Your task to perform on an android device: turn off translation in the chrome app Image 0: 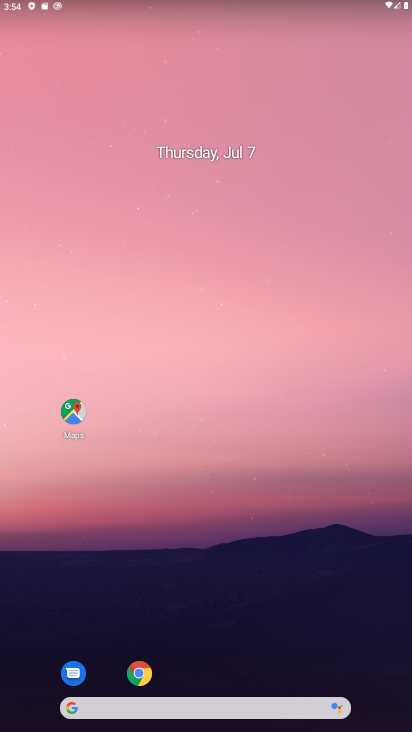
Step 0: press home button
Your task to perform on an android device: turn off translation in the chrome app Image 1: 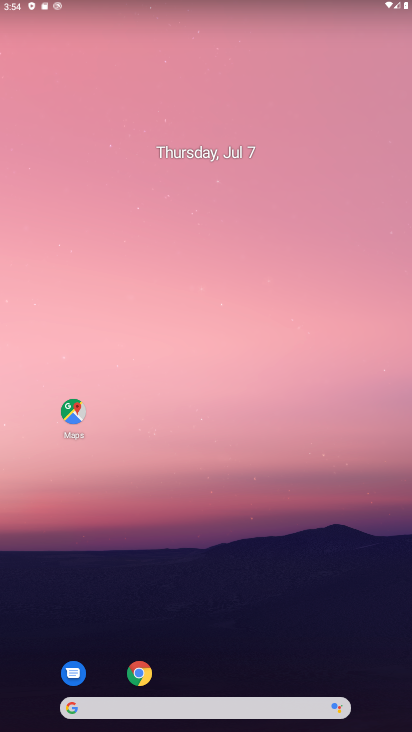
Step 1: click (130, 674)
Your task to perform on an android device: turn off translation in the chrome app Image 2: 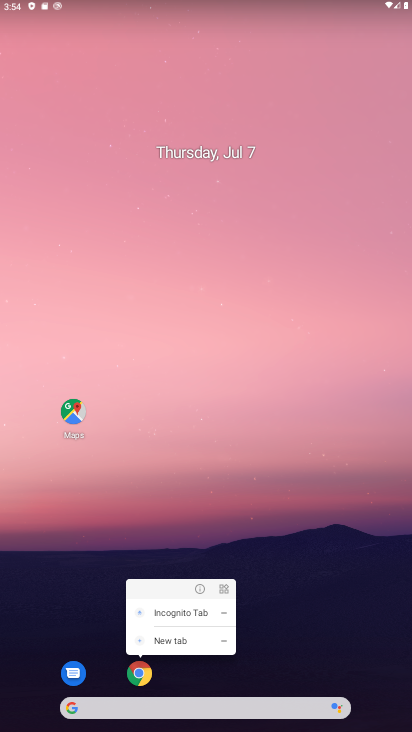
Step 2: click (146, 668)
Your task to perform on an android device: turn off translation in the chrome app Image 3: 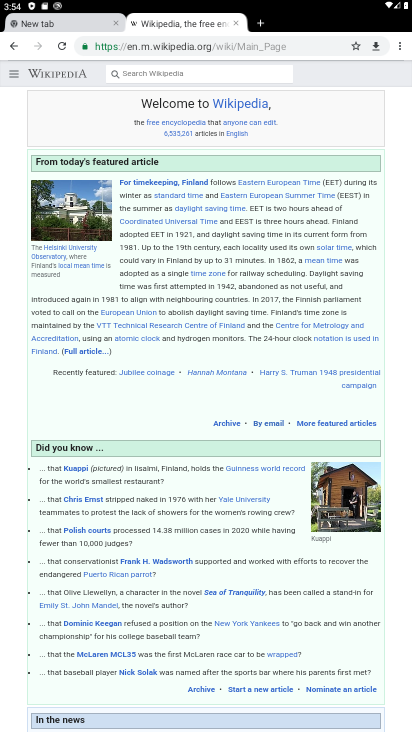
Step 3: click (398, 44)
Your task to perform on an android device: turn off translation in the chrome app Image 4: 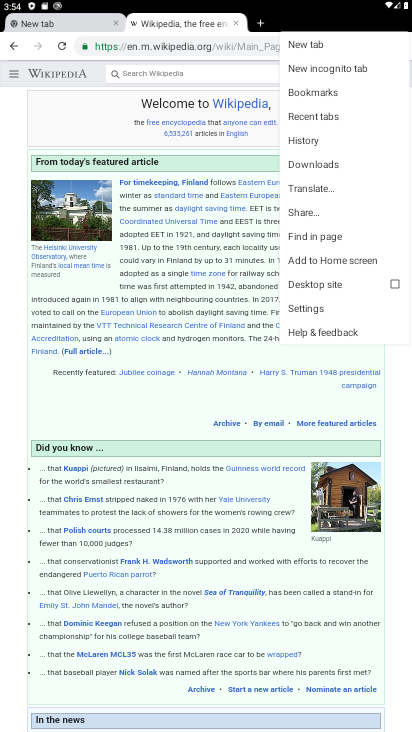
Step 4: click (327, 305)
Your task to perform on an android device: turn off translation in the chrome app Image 5: 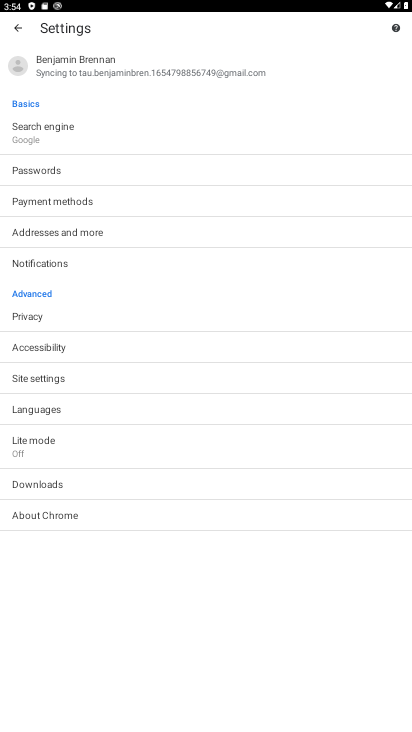
Step 5: click (65, 407)
Your task to perform on an android device: turn off translation in the chrome app Image 6: 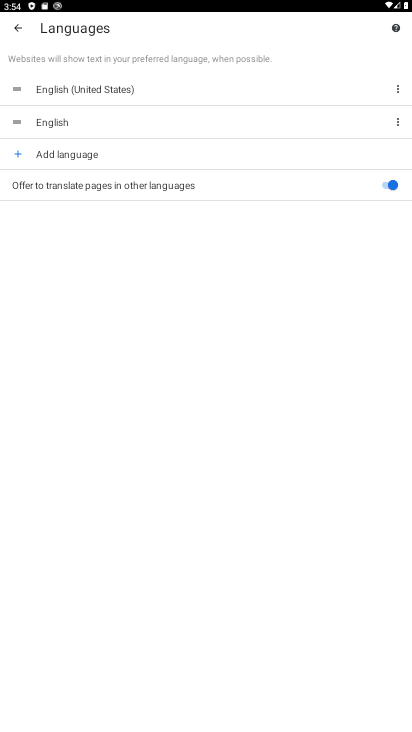
Step 6: click (383, 181)
Your task to perform on an android device: turn off translation in the chrome app Image 7: 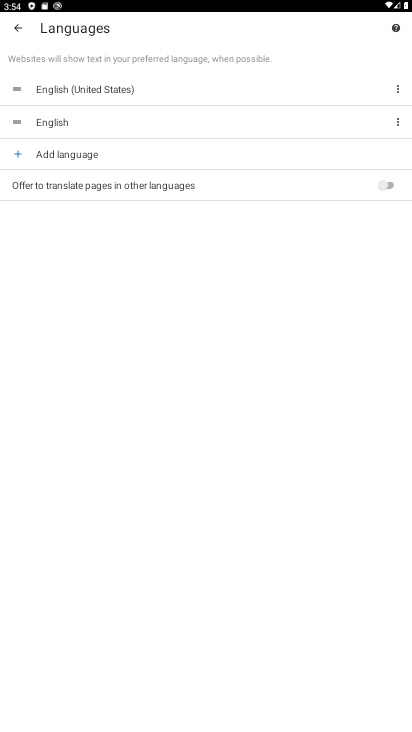
Step 7: task complete